Your task to perform on an android device: Go to Yahoo.com Image 0: 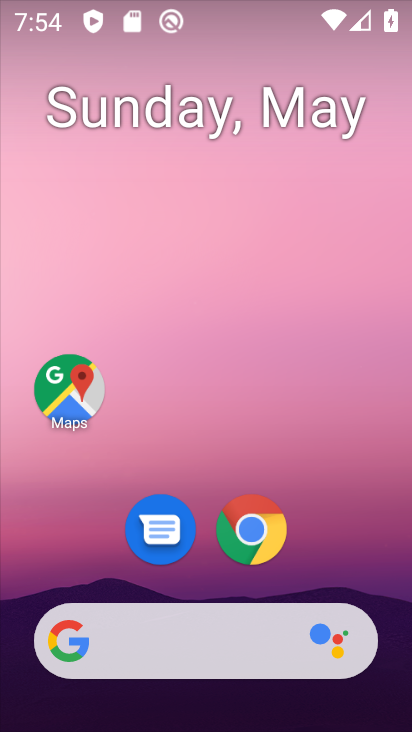
Step 0: click (235, 621)
Your task to perform on an android device: Go to Yahoo.com Image 1: 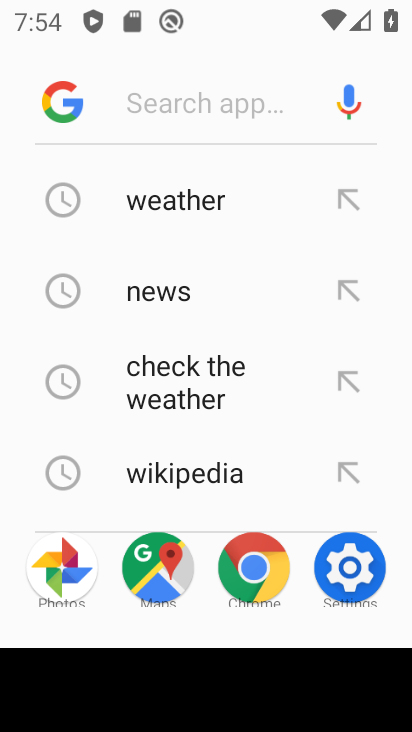
Step 1: type "yahoo.com"
Your task to perform on an android device: Go to Yahoo.com Image 2: 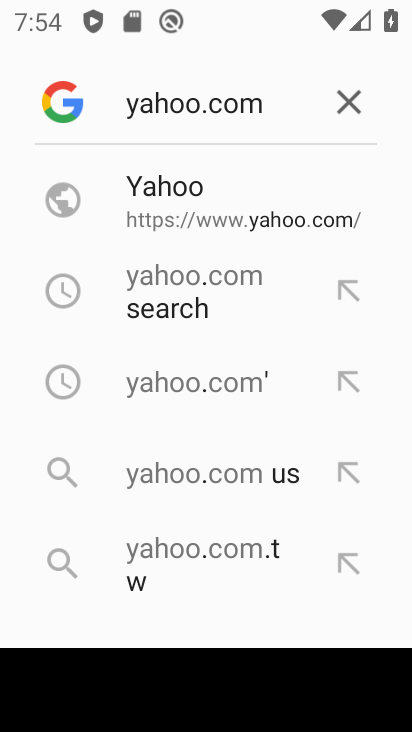
Step 2: click (249, 189)
Your task to perform on an android device: Go to Yahoo.com Image 3: 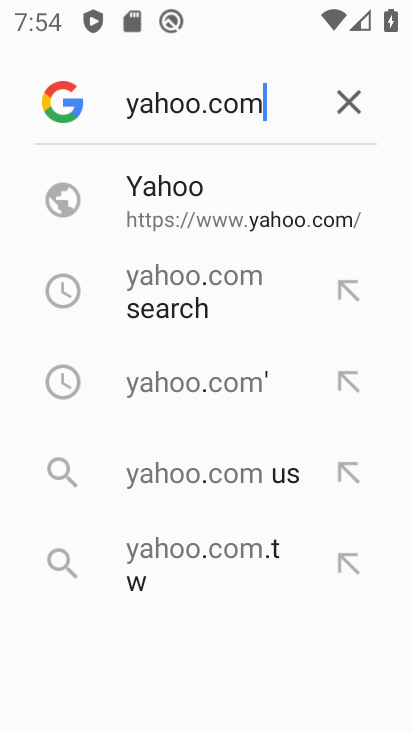
Step 3: task complete